Your task to perform on an android device: Open Reddit.com Image 0: 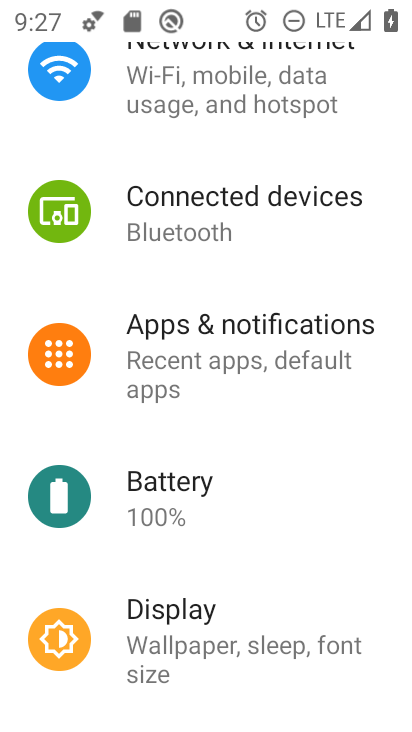
Step 0: press home button
Your task to perform on an android device: Open Reddit.com Image 1: 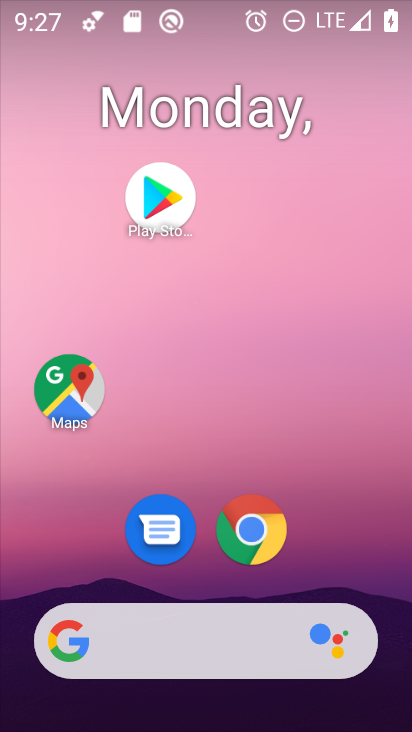
Step 1: click (256, 528)
Your task to perform on an android device: Open Reddit.com Image 2: 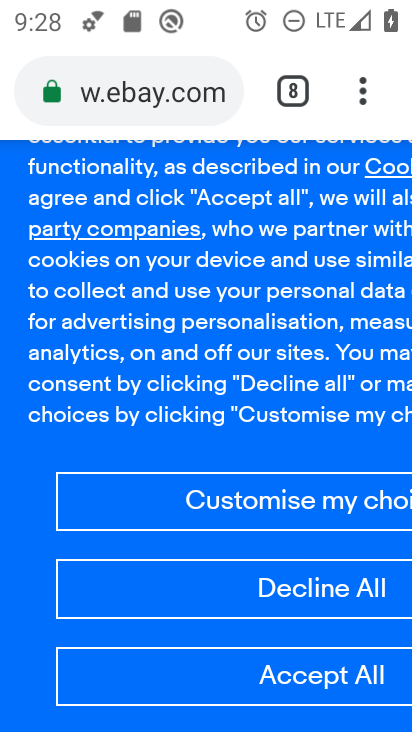
Step 2: click (353, 89)
Your task to perform on an android device: Open Reddit.com Image 3: 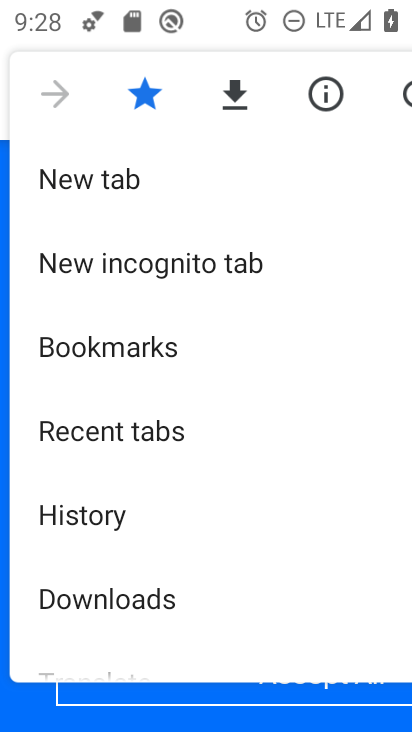
Step 3: click (101, 174)
Your task to perform on an android device: Open Reddit.com Image 4: 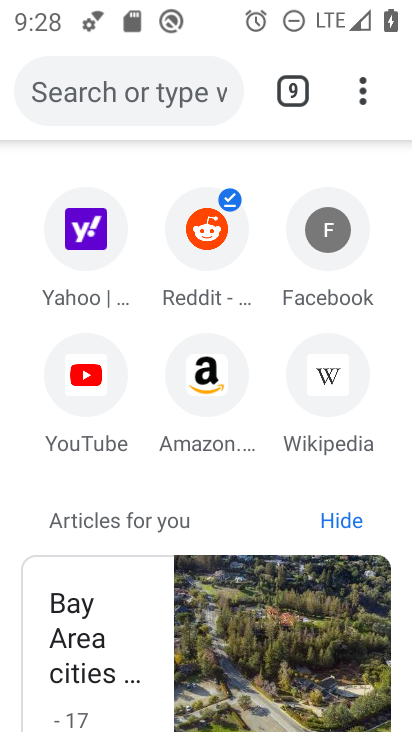
Step 4: click (147, 84)
Your task to perform on an android device: Open Reddit.com Image 5: 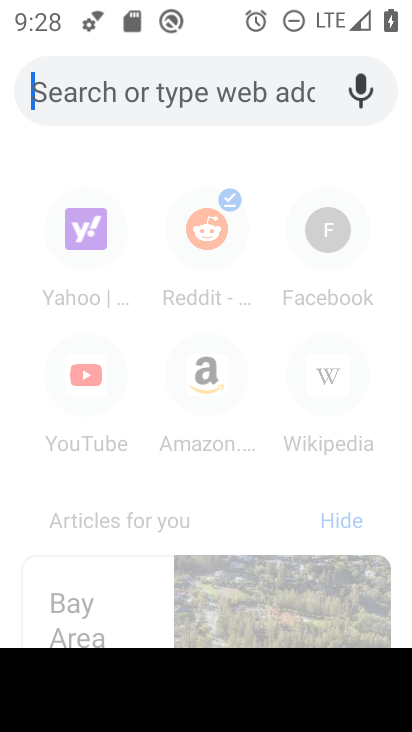
Step 5: type "reddit.com"
Your task to perform on an android device: Open Reddit.com Image 6: 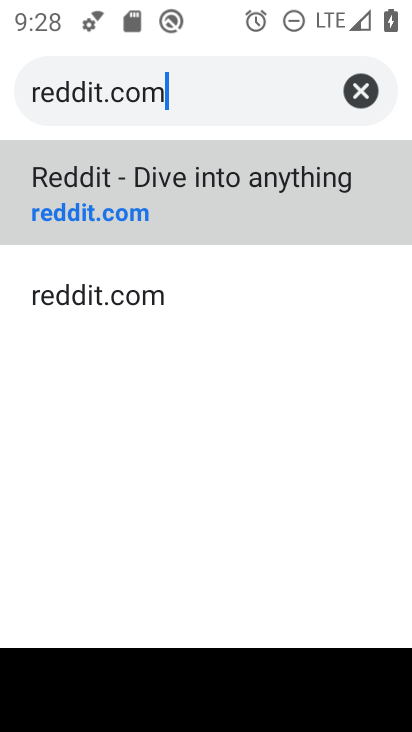
Step 6: click (127, 177)
Your task to perform on an android device: Open Reddit.com Image 7: 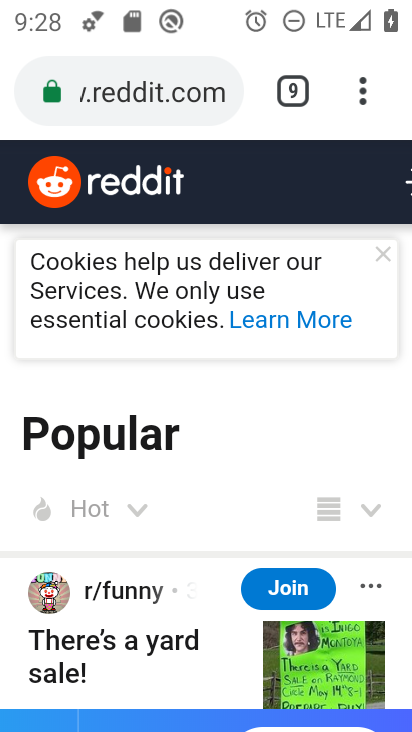
Step 7: task complete